Your task to perform on an android device: open app "Nova Launcher" (install if not already installed) and enter user name: "haggard@gmail.com" and password: "sadder" Image 0: 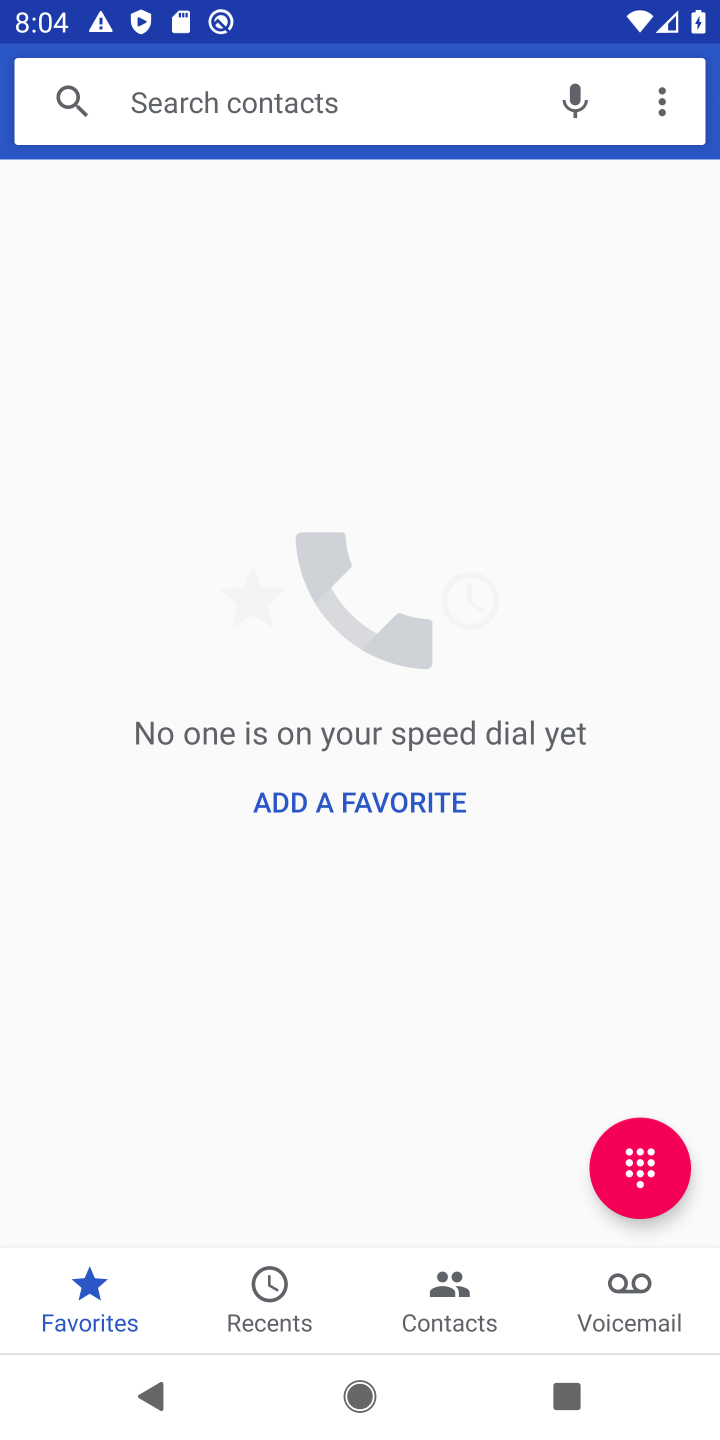
Step 0: press back button
Your task to perform on an android device: open app "Nova Launcher" (install if not already installed) and enter user name: "haggard@gmail.com" and password: "sadder" Image 1: 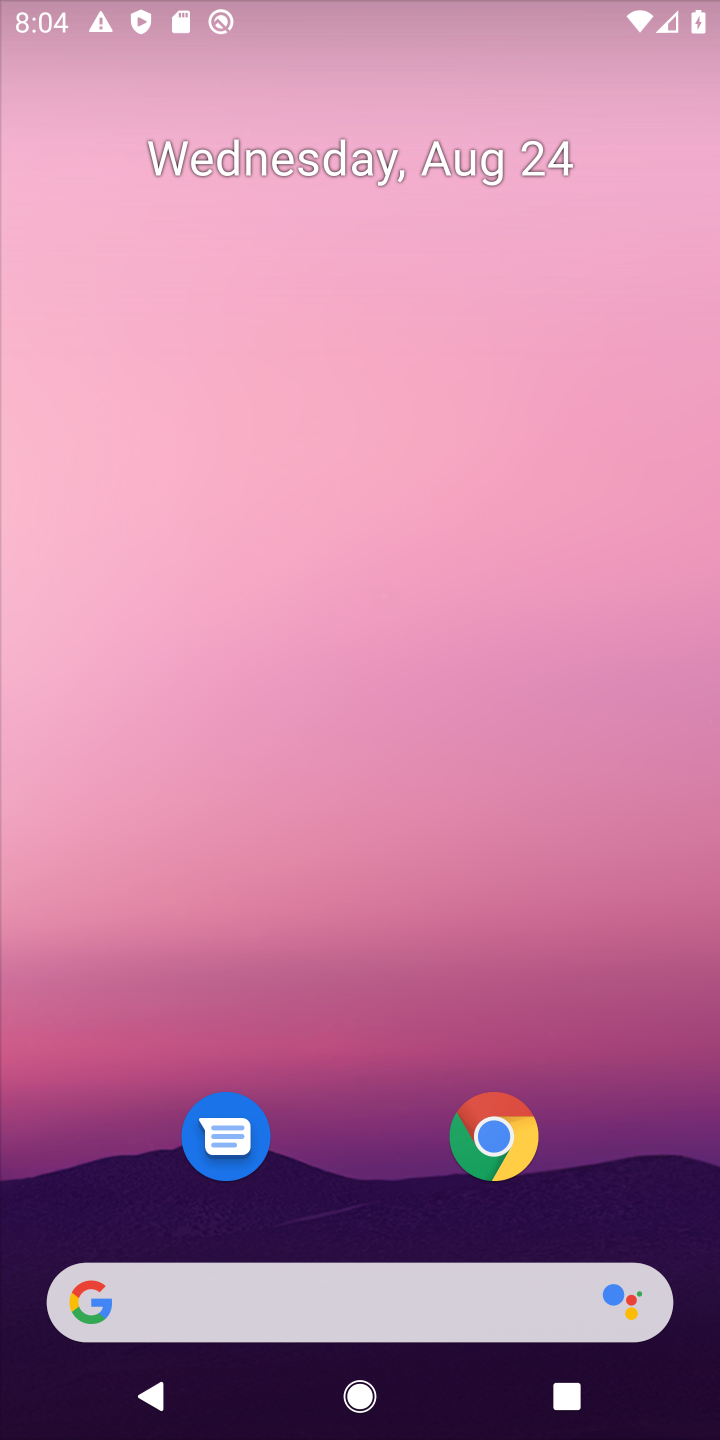
Step 1: drag from (312, 1145) to (450, 101)
Your task to perform on an android device: open app "Nova Launcher" (install if not already installed) and enter user name: "haggard@gmail.com" and password: "sadder" Image 2: 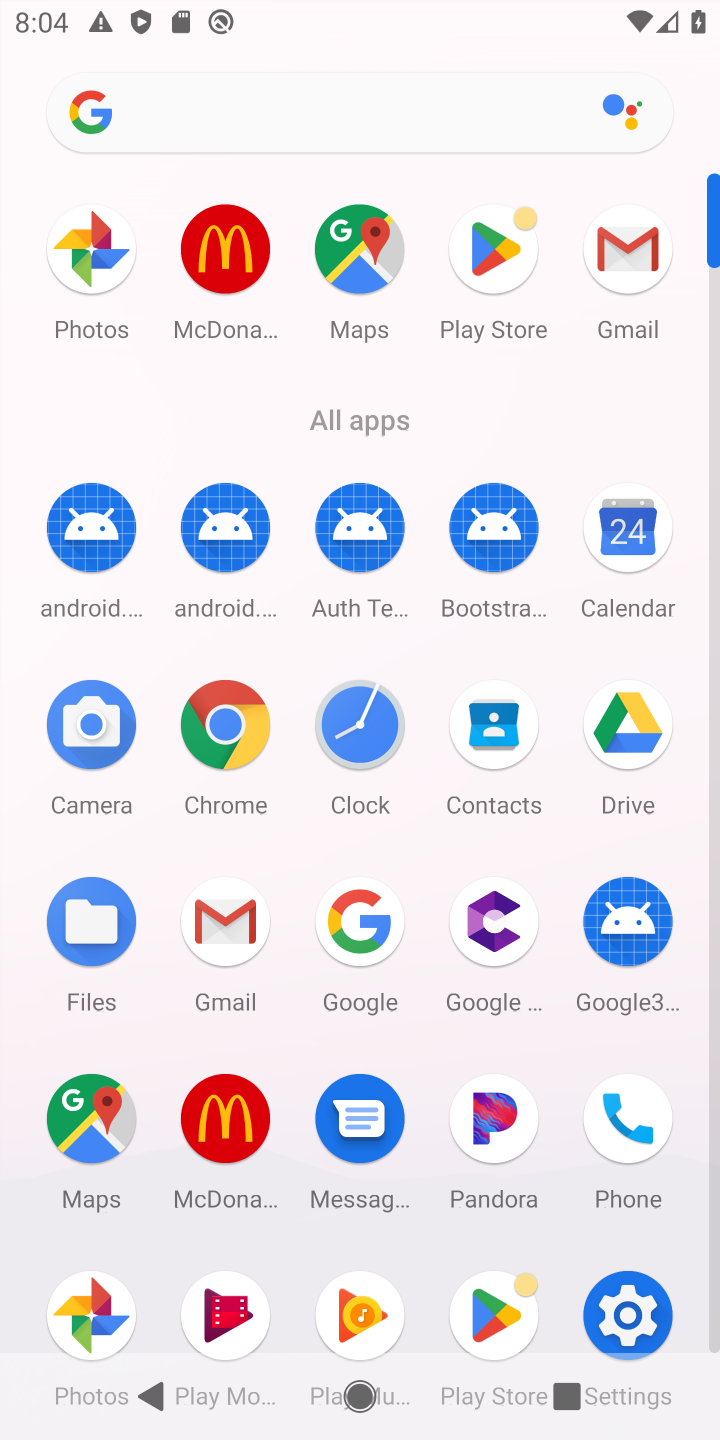
Step 2: click (499, 221)
Your task to perform on an android device: open app "Nova Launcher" (install if not already installed) and enter user name: "haggard@gmail.com" and password: "sadder" Image 3: 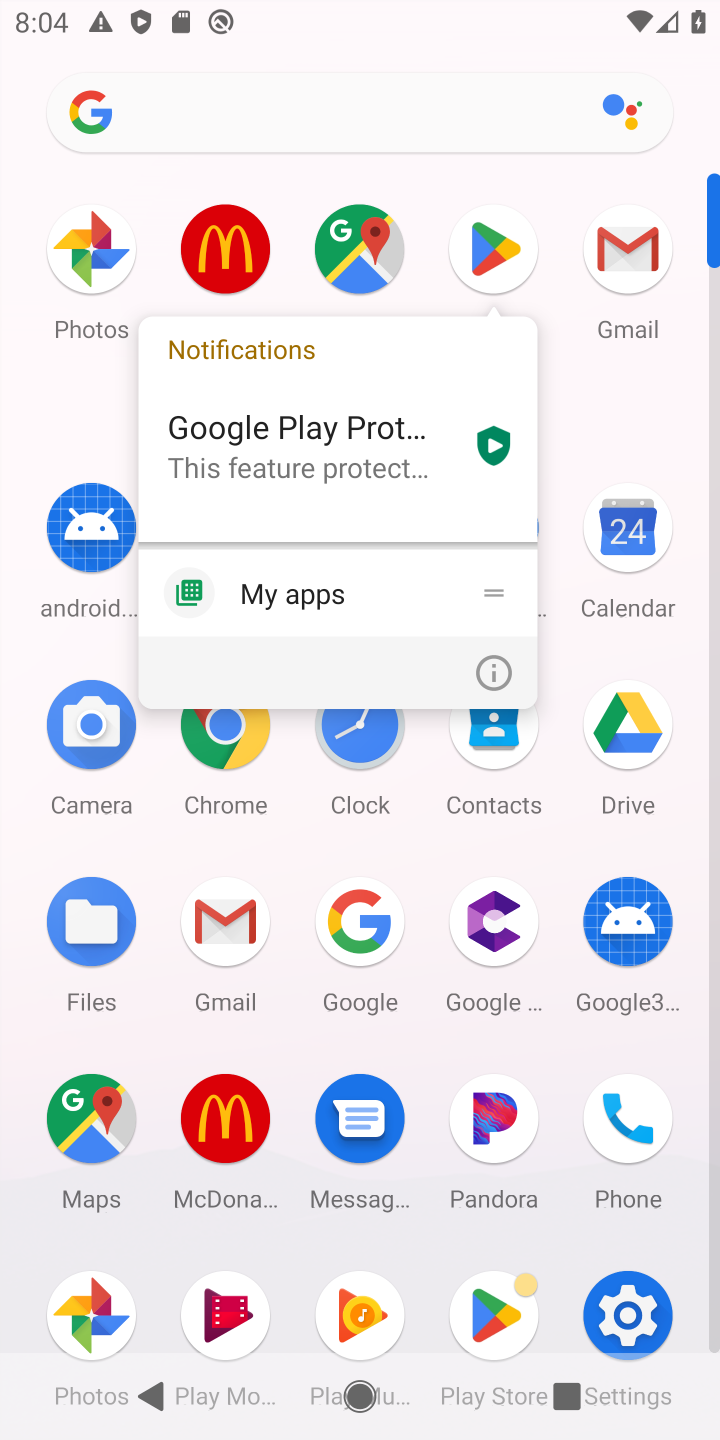
Step 3: click (490, 242)
Your task to perform on an android device: open app "Nova Launcher" (install if not already installed) and enter user name: "haggard@gmail.com" and password: "sadder" Image 4: 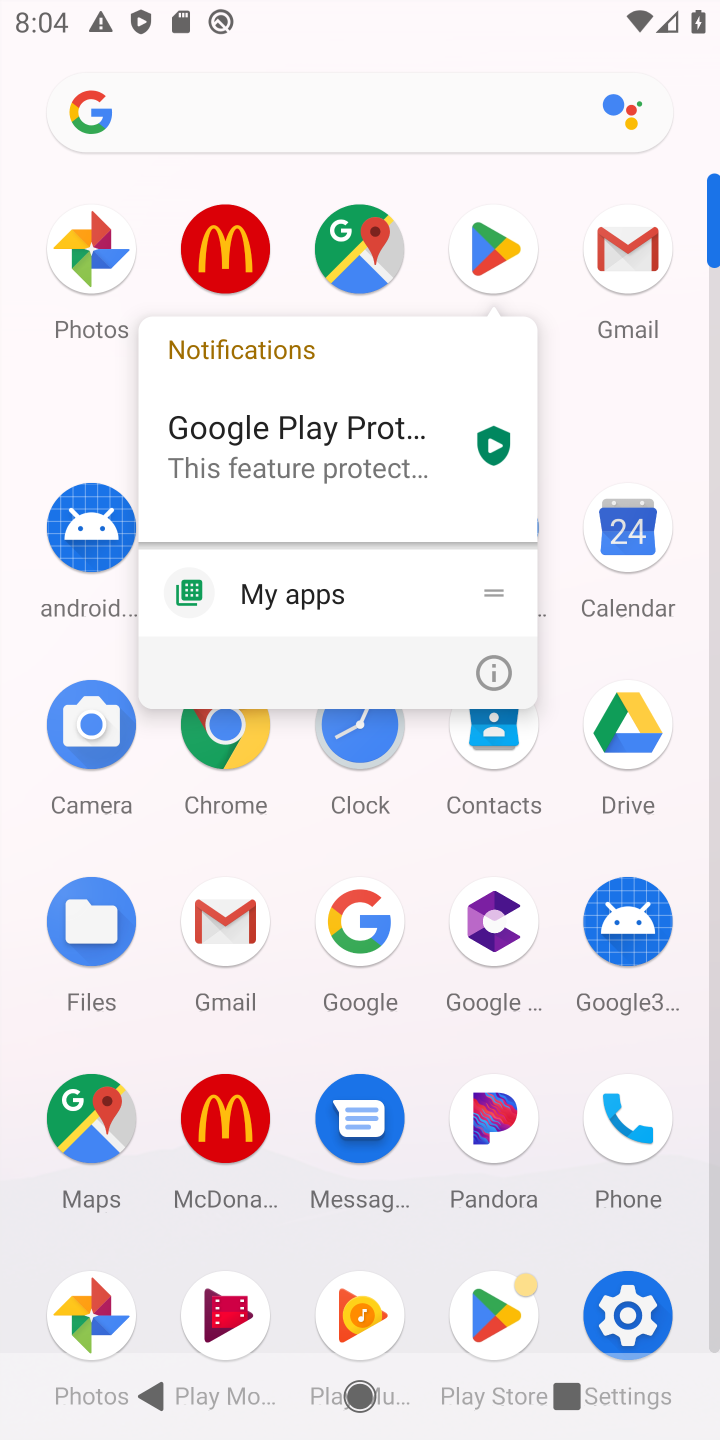
Step 4: click (488, 261)
Your task to perform on an android device: open app "Nova Launcher" (install if not already installed) and enter user name: "haggard@gmail.com" and password: "sadder" Image 5: 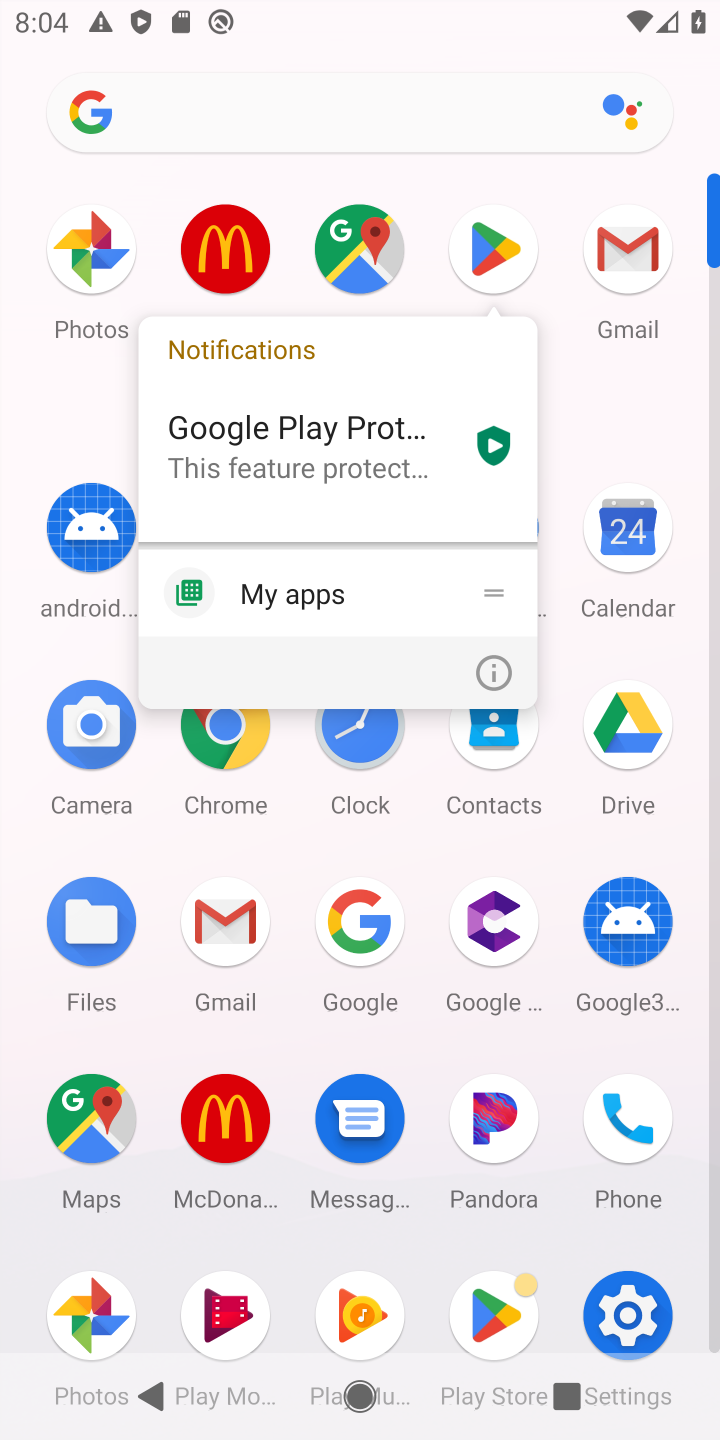
Step 5: click (523, 231)
Your task to perform on an android device: open app "Nova Launcher" (install if not already installed) and enter user name: "haggard@gmail.com" and password: "sadder" Image 6: 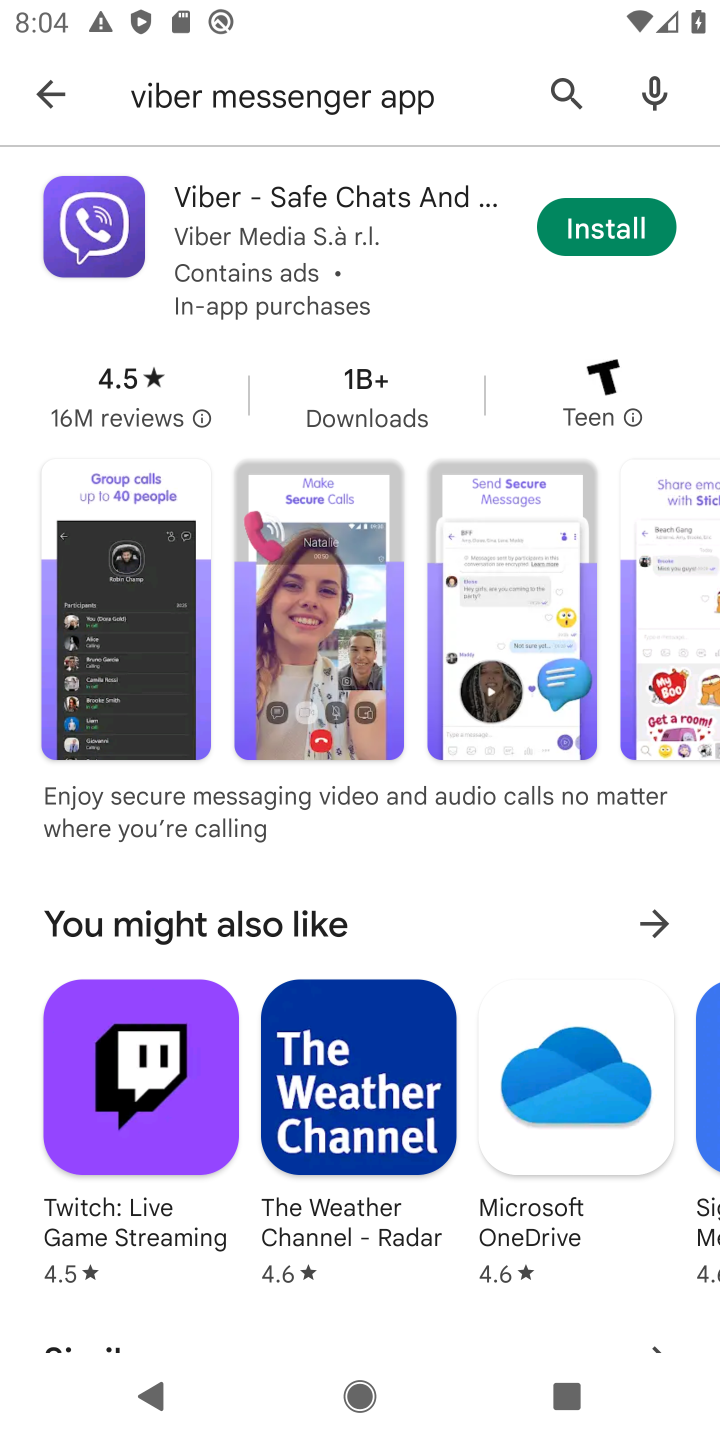
Step 6: click (563, 81)
Your task to perform on an android device: open app "Nova Launcher" (install if not already installed) and enter user name: "haggard@gmail.com" and password: "sadder" Image 7: 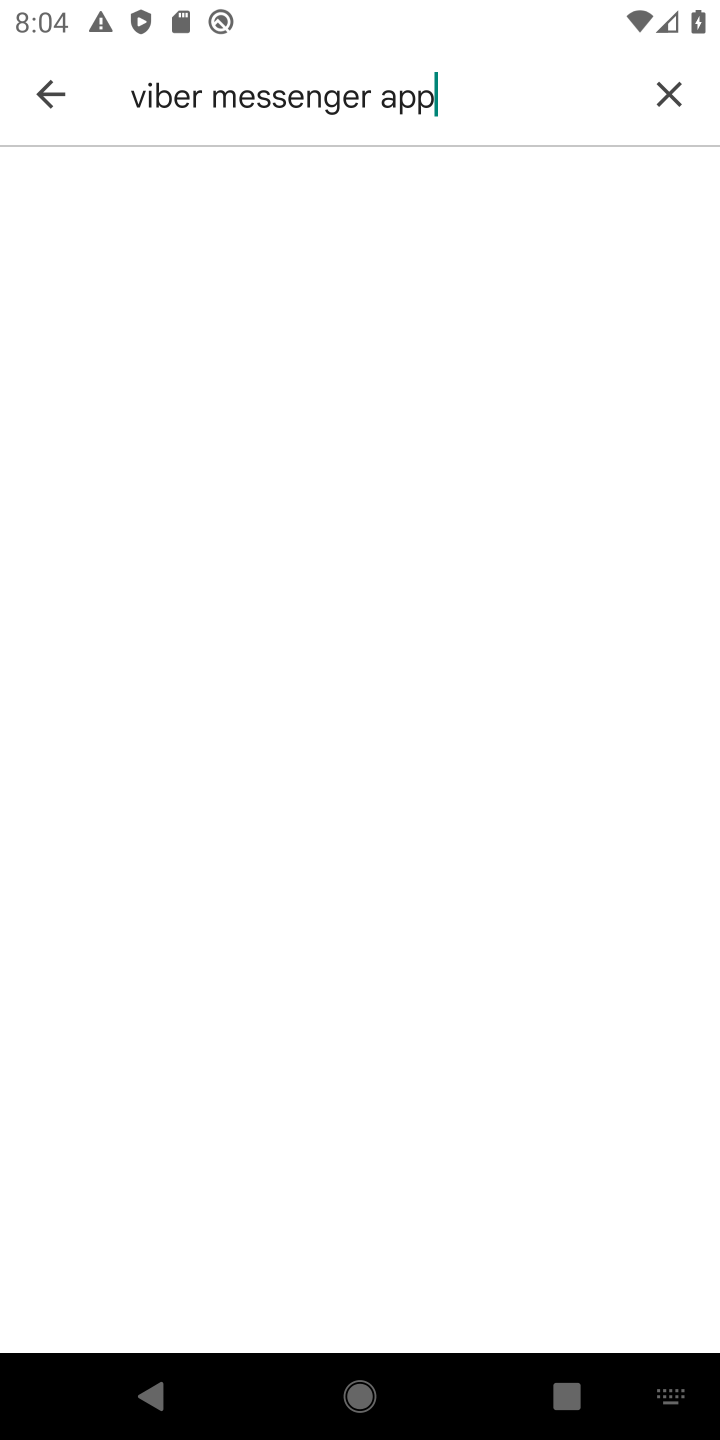
Step 7: click (666, 94)
Your task to perform on an android device: open app "Nova Launcher" (install if not already installed) and enter user name: "haggard@gmail.com" and password: "sadder" Image 8: 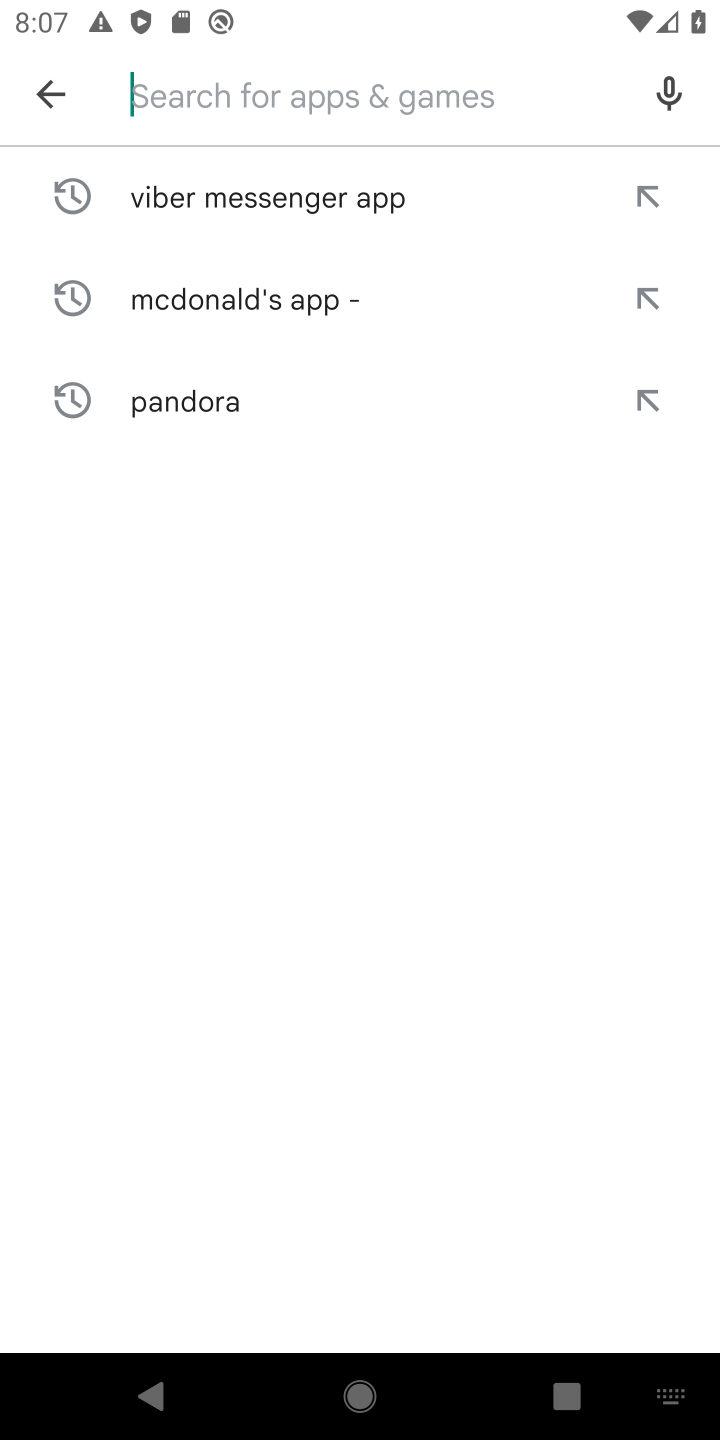
Step 8: click (164, 106)
Your task to perform on an android device: open app "Nova Launcher" (install if not already installed) and enter user name: "haggard@gmail.com" and password: "sadder" Image 9: 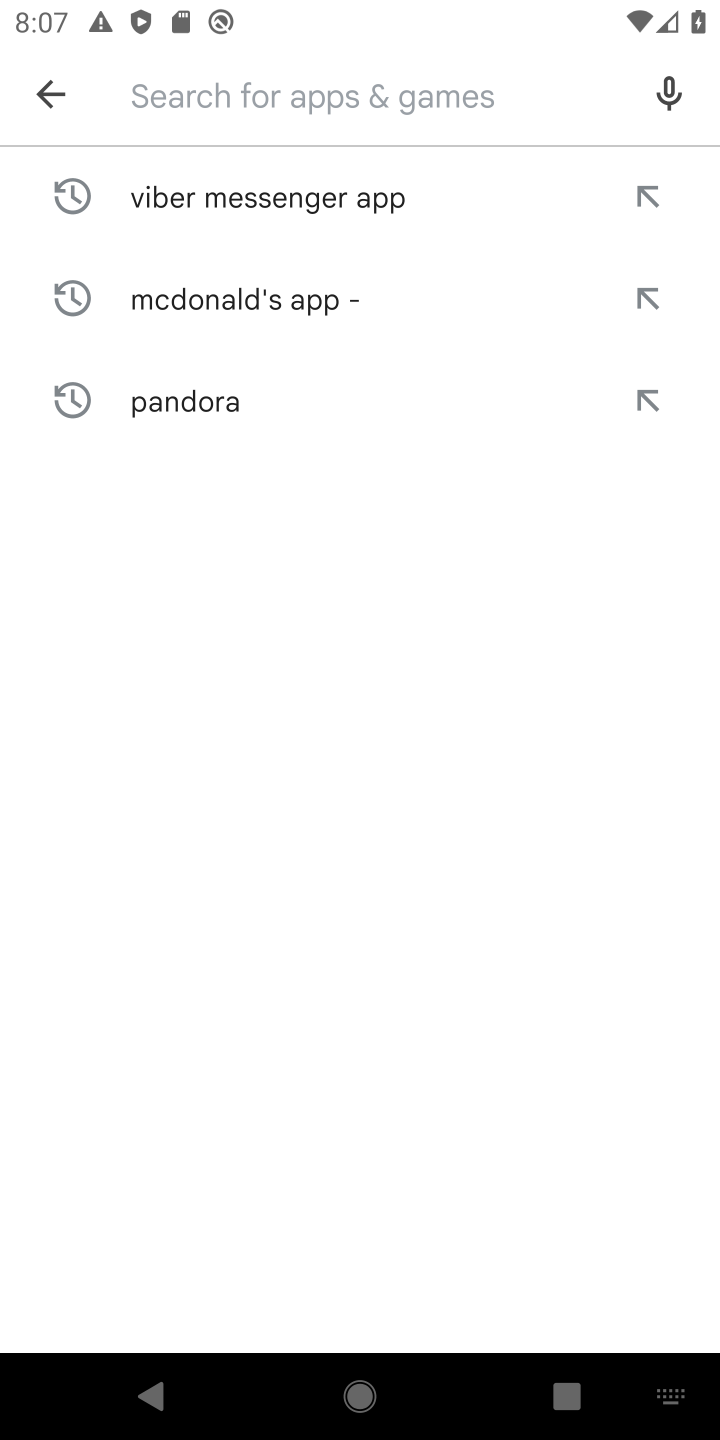
Step 9: type "Nova Launcher"
Your task to perform on an android device: open app "Nova Launcher" (install if not already installed) and enter user name: "haggard@gmail.com" and password: "sadder" Image 10: 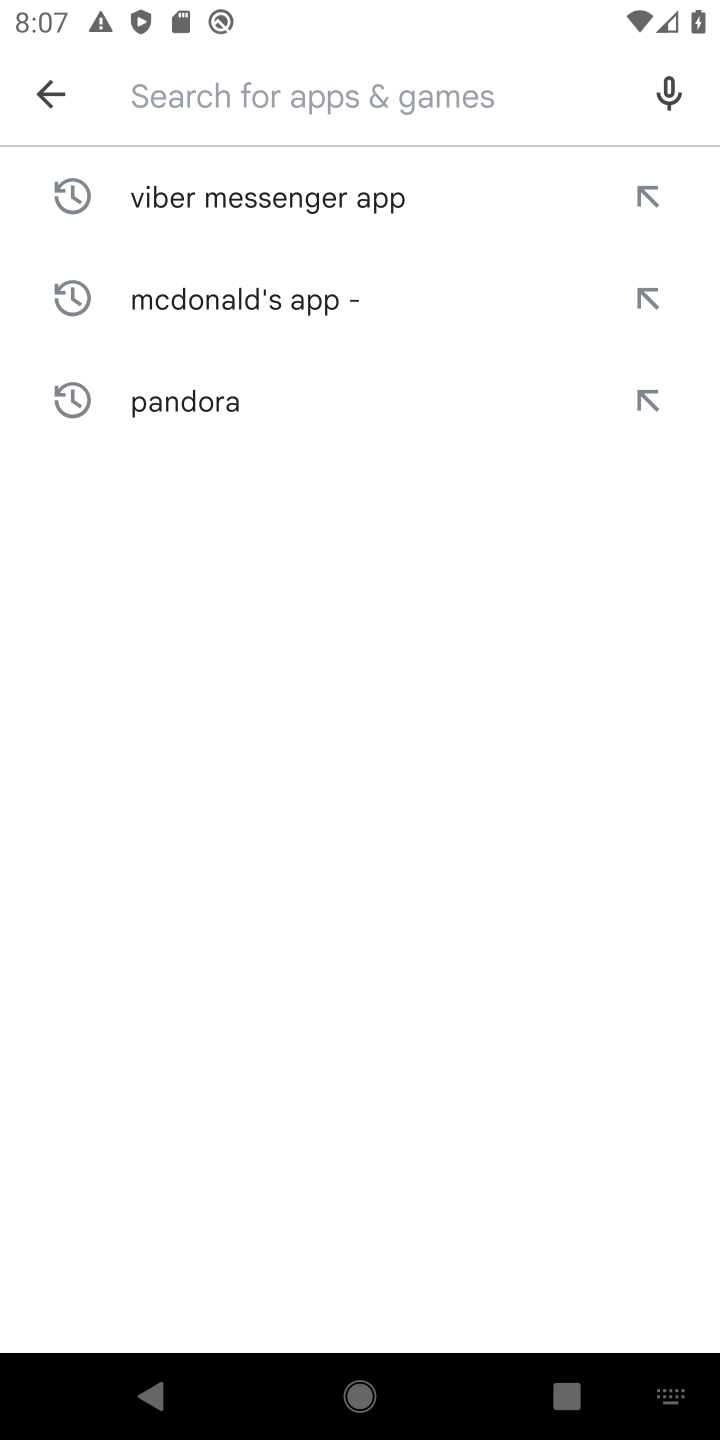
Step 10: click (383, 820)
Your task to perform on an android device: open app "Nova Launcher" (install if not already installed) and enter user name: "haggard@gmail.com" and password: "sadder" Image 11: 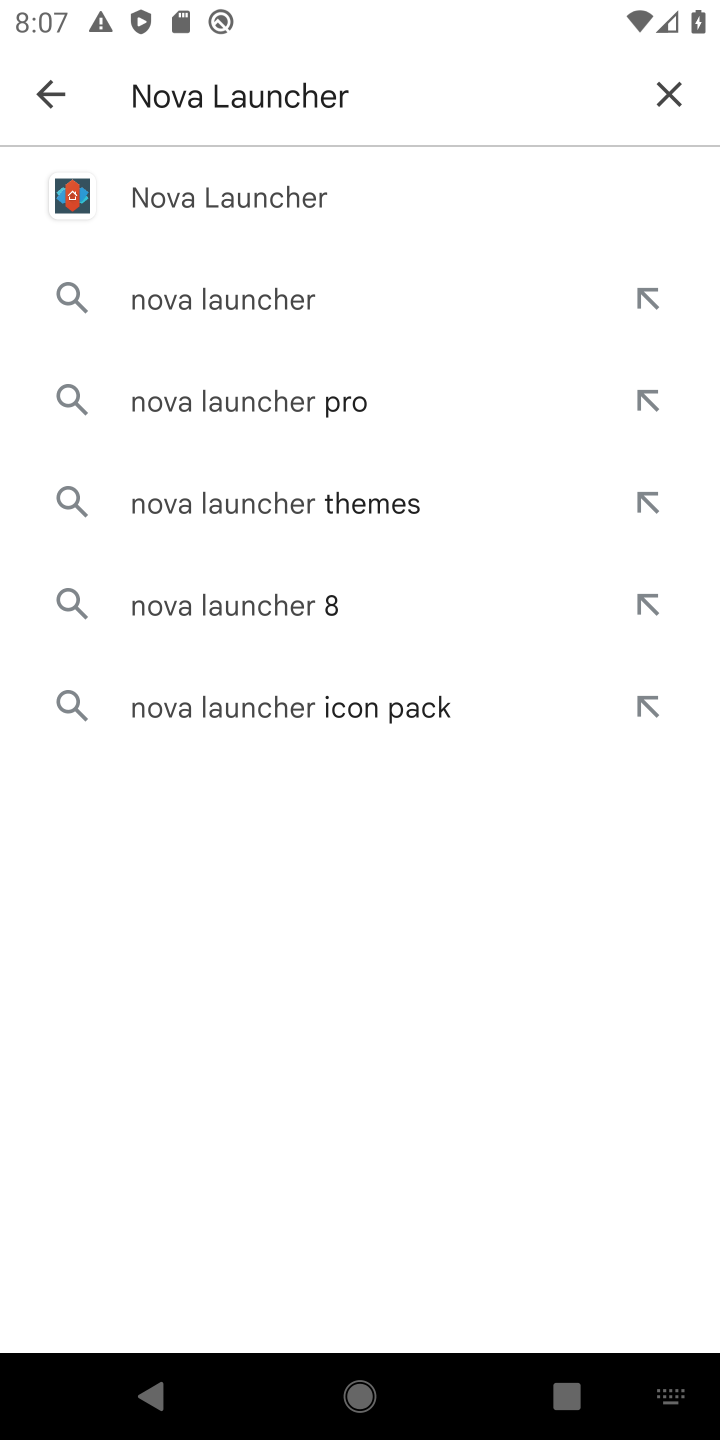
Step 11: click (250, 206)
Your task to perform on an android device: open app "Nova Launcher" (install if not already installed) and enter user name: "haggard@gmail.com" and password: "sadder" Image 12: 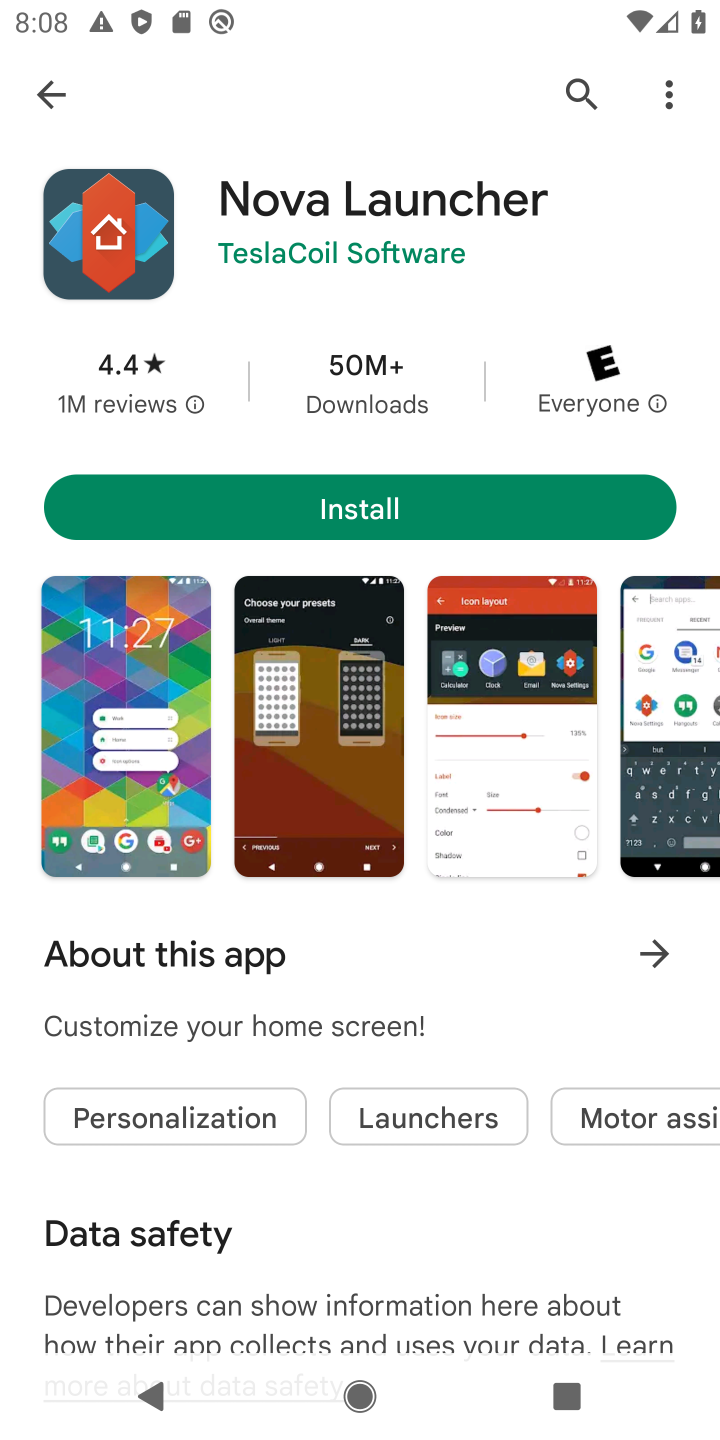
Step 12: click (207, 530)
Your task to perform on an android device: open app "Nova Launcher" (install if not already installed) and enter user name: "haggard@gmail.com" and password: "sadder" Image 13: 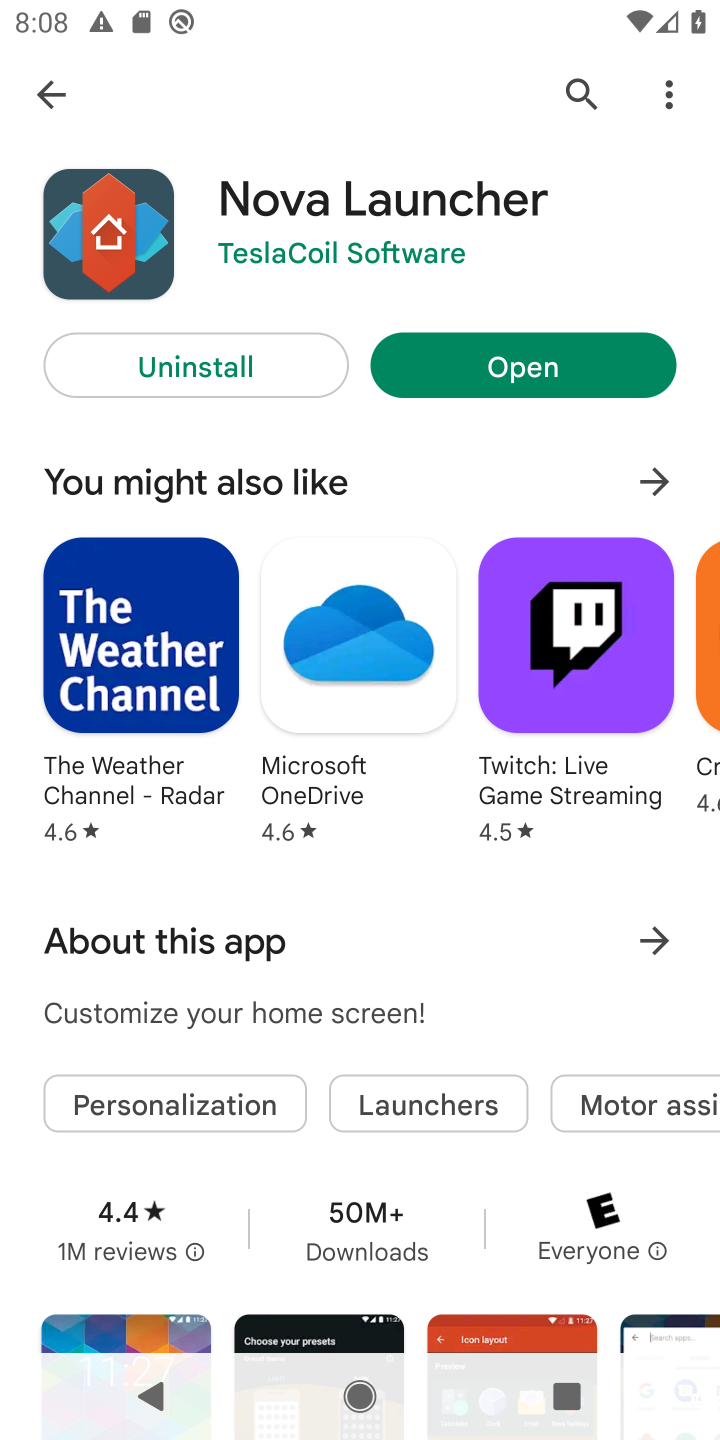
Step 13: click (522, 365)
Your task to perform on an android device: open app "Nova Launcher" (install if not already installed) and enter user name: "haggard@gmail.com" and password: "sadder" Image 14: 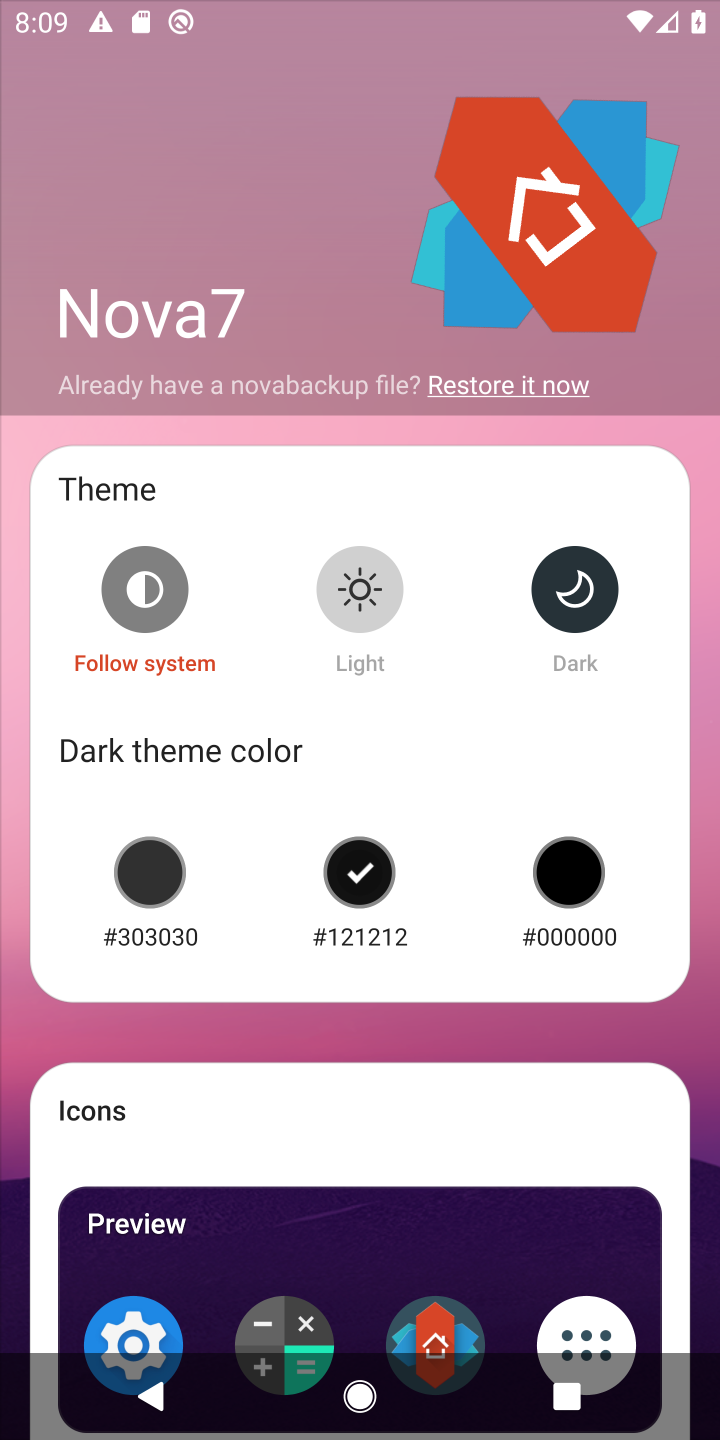
Step 14: task complete